Your task to perform on an android device: change the clock style Image 0: 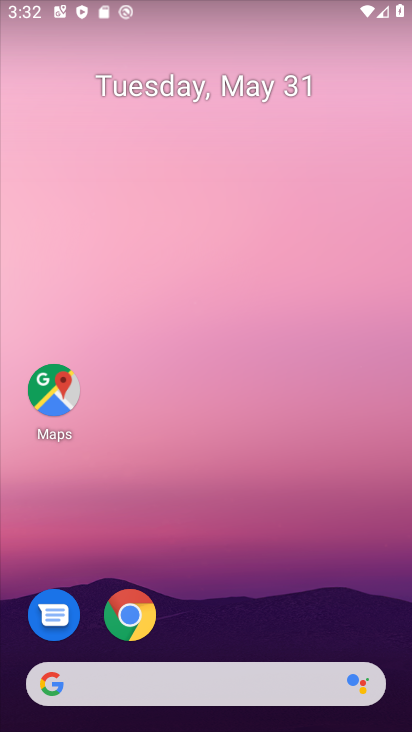
Step 0: drag from (253, 690) to (91, 64)
Your task to perform on an android device: change the clock style Image 1: 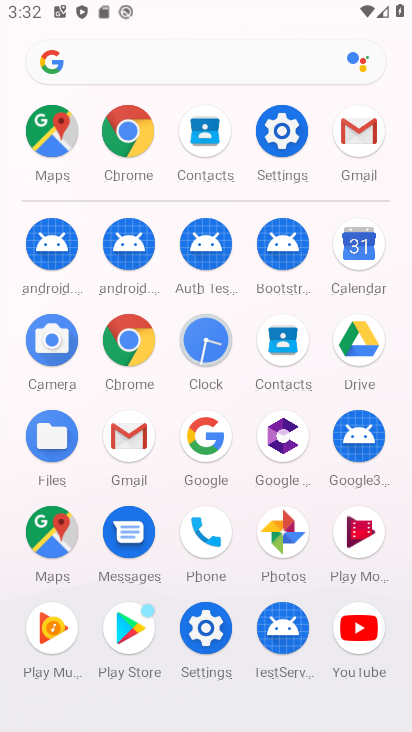
Step 1: click (204, 346)
Your task to perform on an android device: change the clock style Image 2: 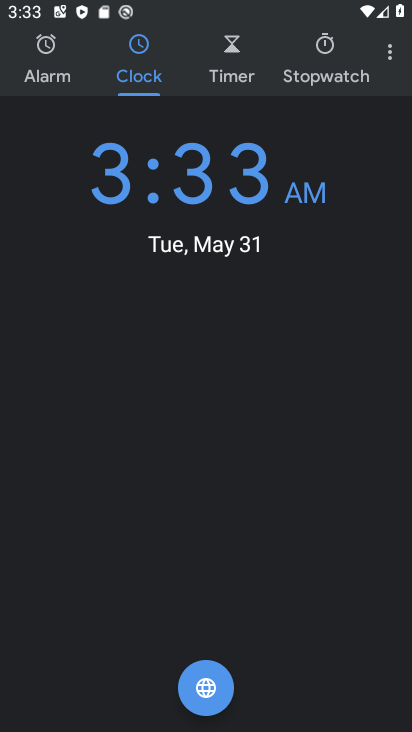
Step 2: click (395, 59)
Your task to perform on an android device: change the clock style Image 3: 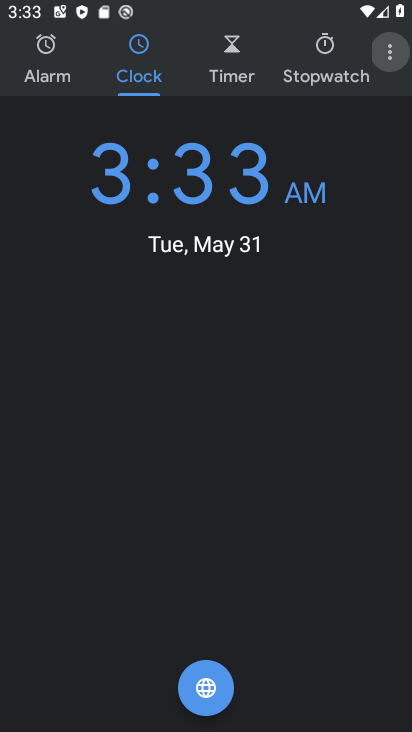
Step 3: click (395, 59)
Your task to perform on an android device: change the clock style Image 4: 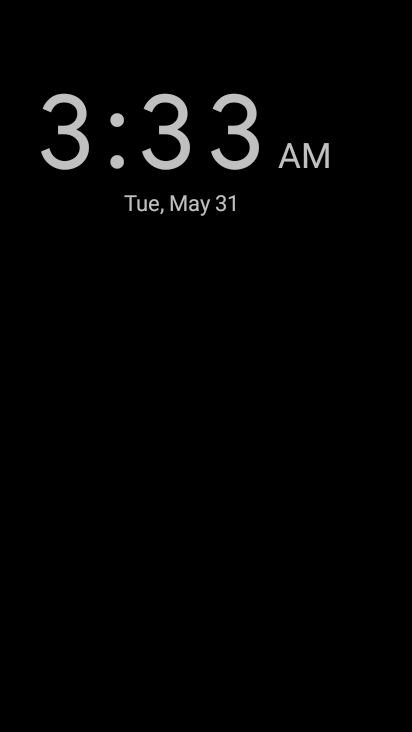
Step 4: drag from (201, 379) to (135, 180)
Your task to perform on an android device: change the clock style Image 5: 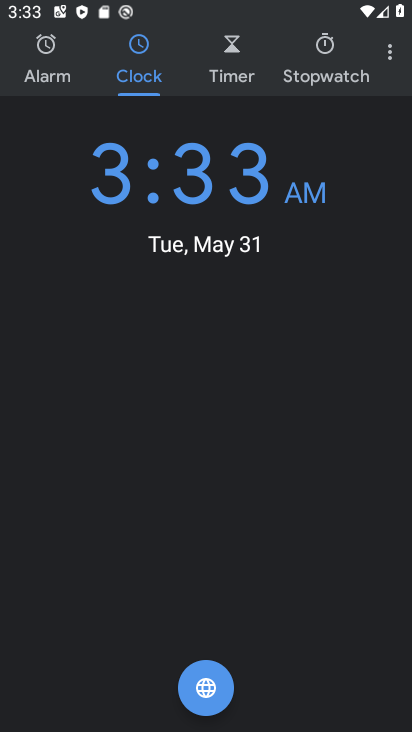
Step 5: drag from (389, 60) to (379, 112)
Your task to perform on an android device: change the clock style Image 6: 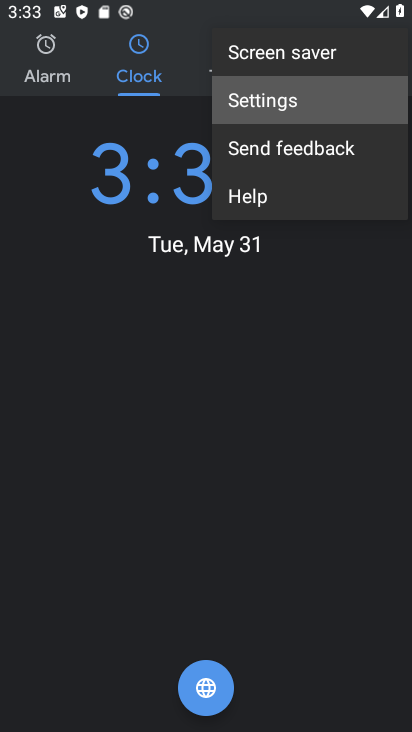
Step 6: click (379, 45)
Your task to perform on an android device: change the clock style Image 7: 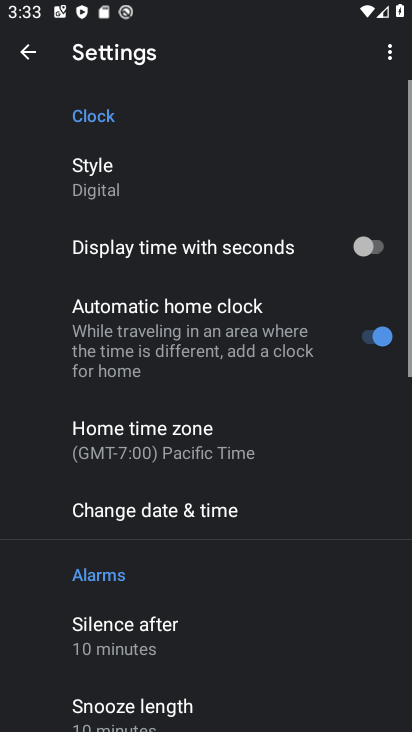
Step 7: click (259, 95)
Your task to perform on an android device: change the clock style Image 8: 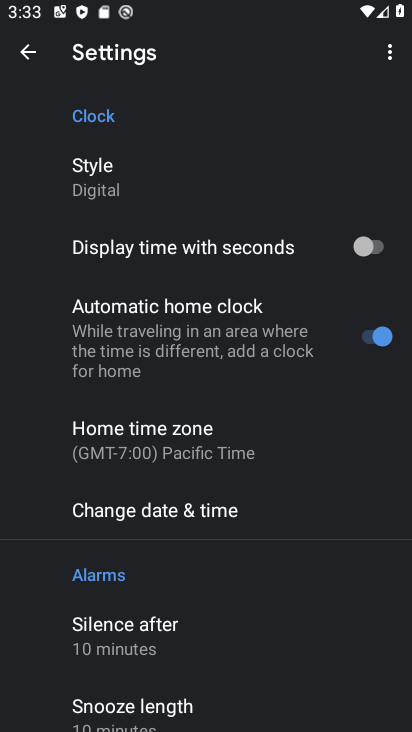
Step 8: click (144, 172)
Your task to perform on an android device: change the clock style Image 9: 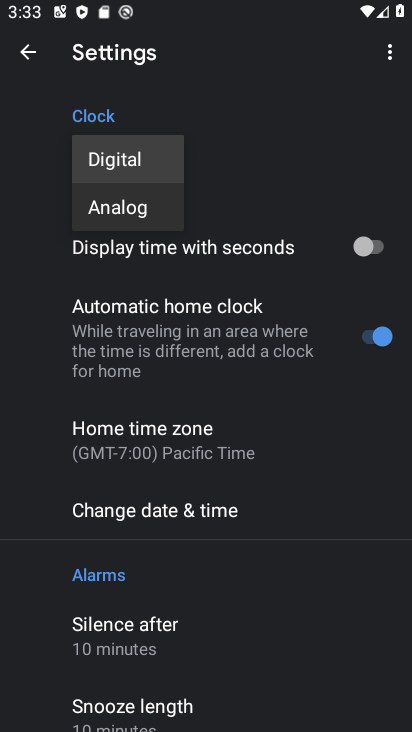
Step 9: click (134, 204)
Your task to perform on an android device: change the clock style Image 10: 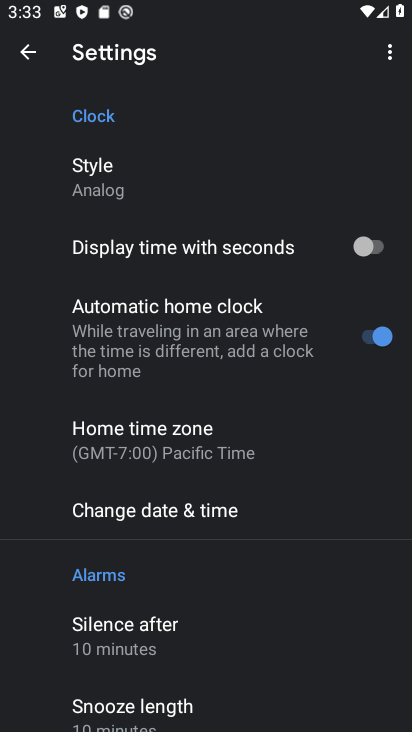
Step 10: task complete